Your task to perform on an android device: show emergency info Image 0: 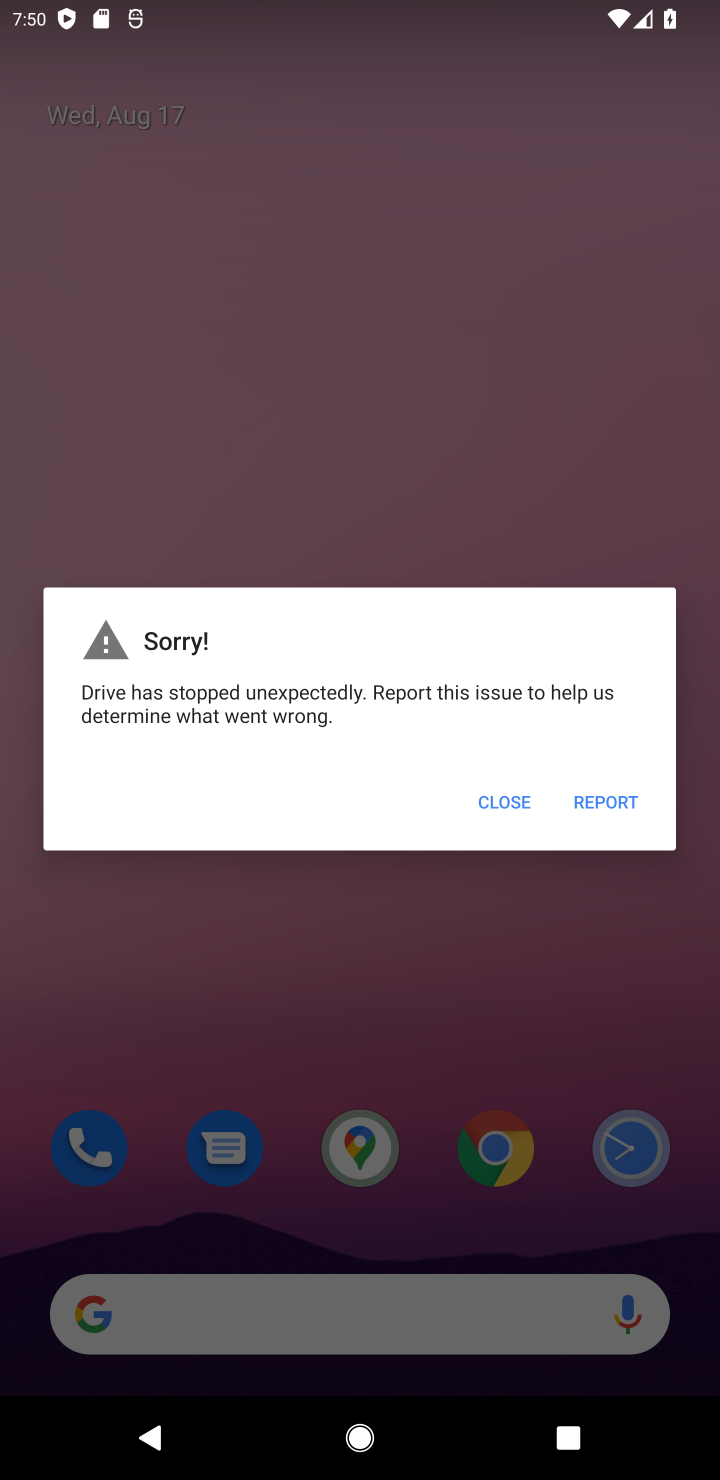
Step 0: click (490, 796)
Your task to perform on an android device: show emergency info Image 1: 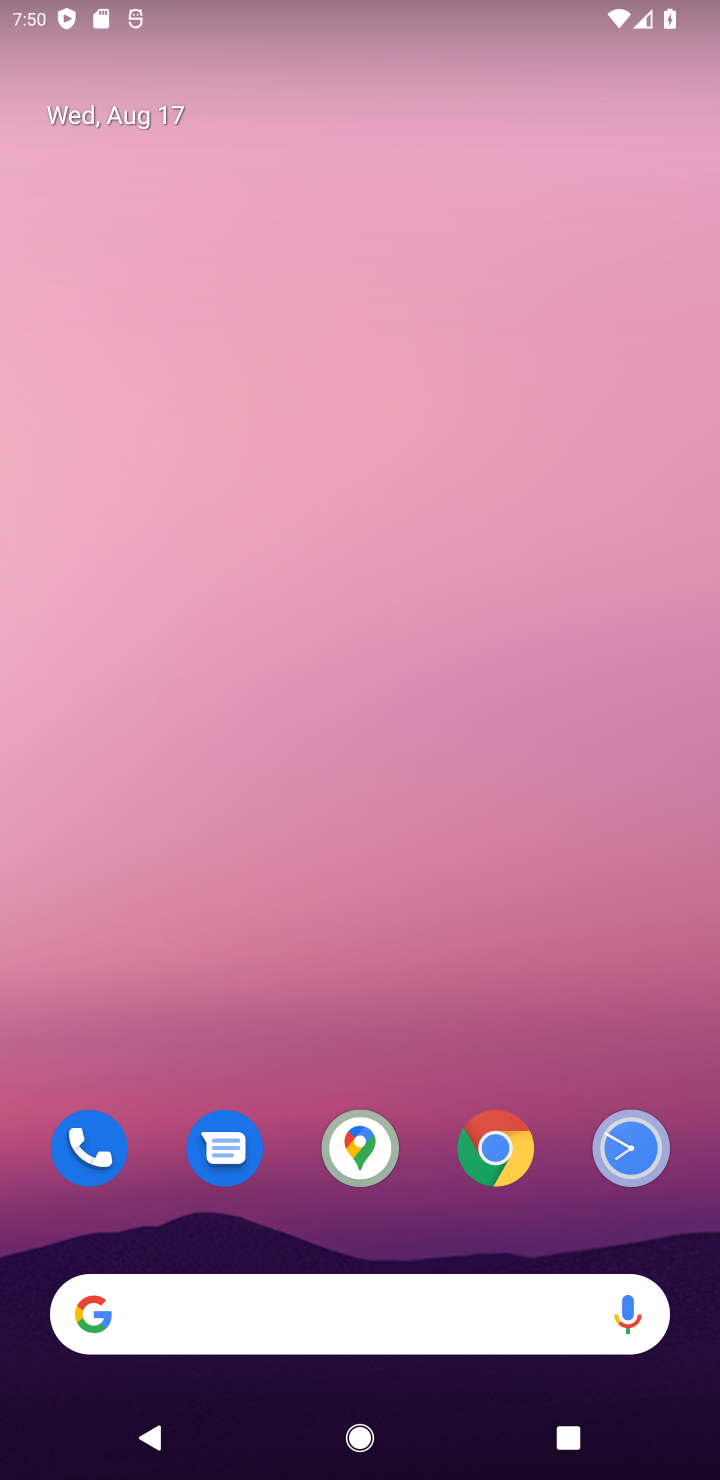
Step 1: drag from (414, 1283) to (414, 187)
Your task to perform on an android device: show emergency info Image 2: 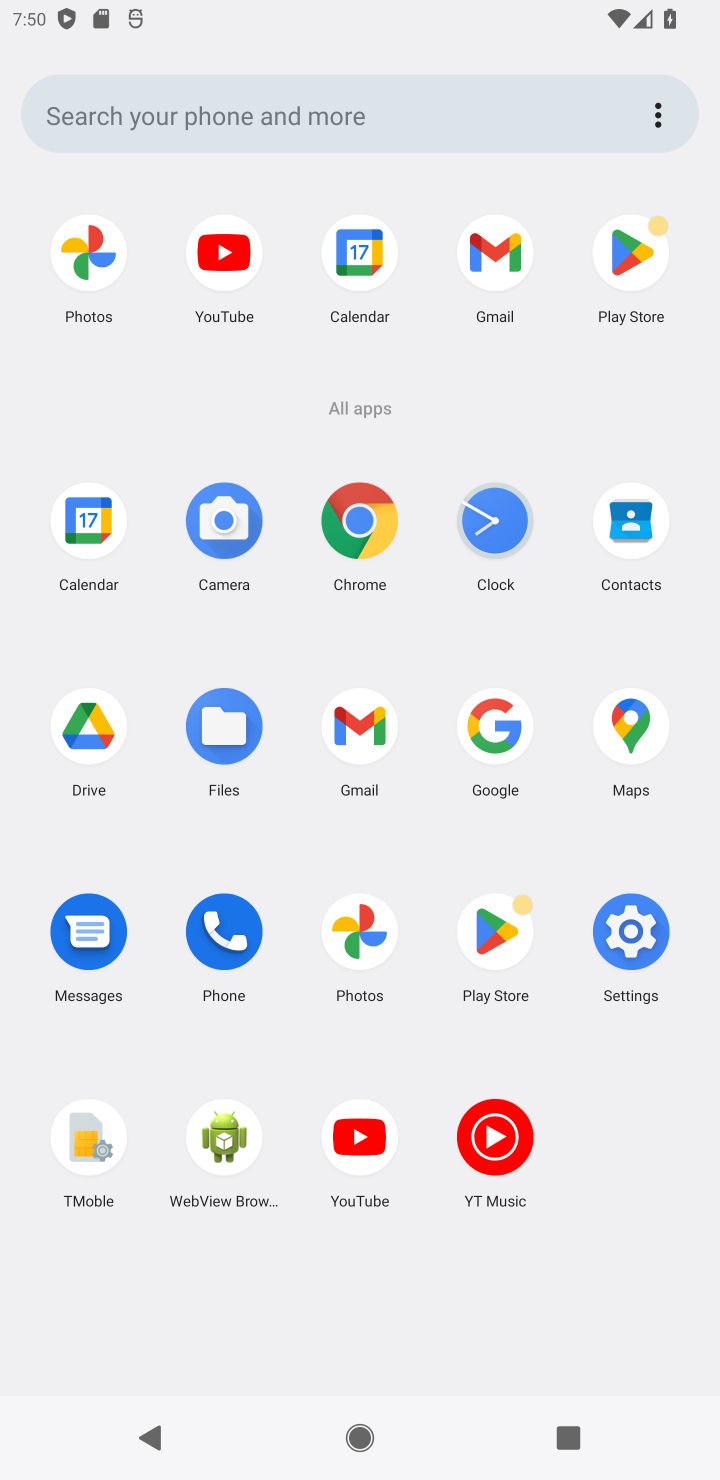
Step 2: click (610, 953)
Your task to perform on an android device: show emergency info Image 3: 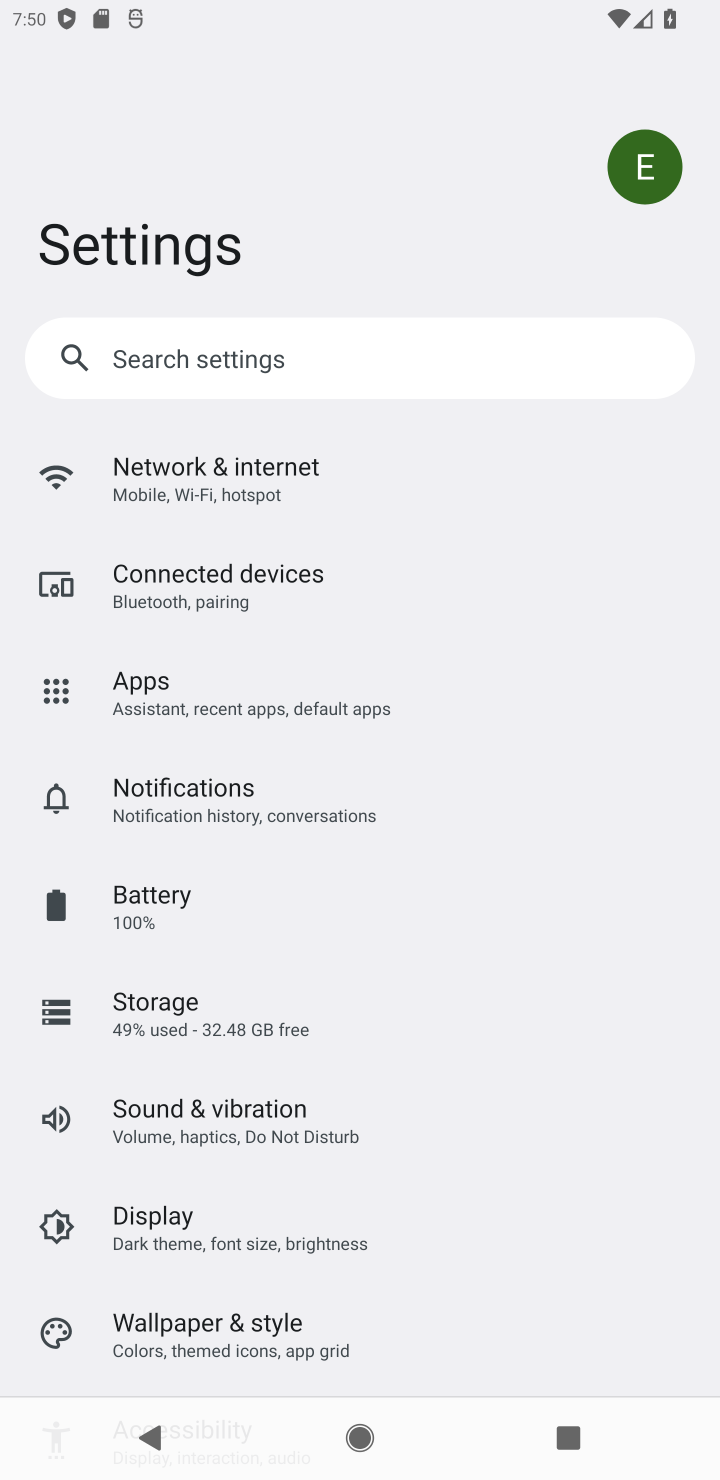
Step 3: drag from (194, 1312) to (229, 490)
Your task to perform on an android device: show emergency info Image 4: 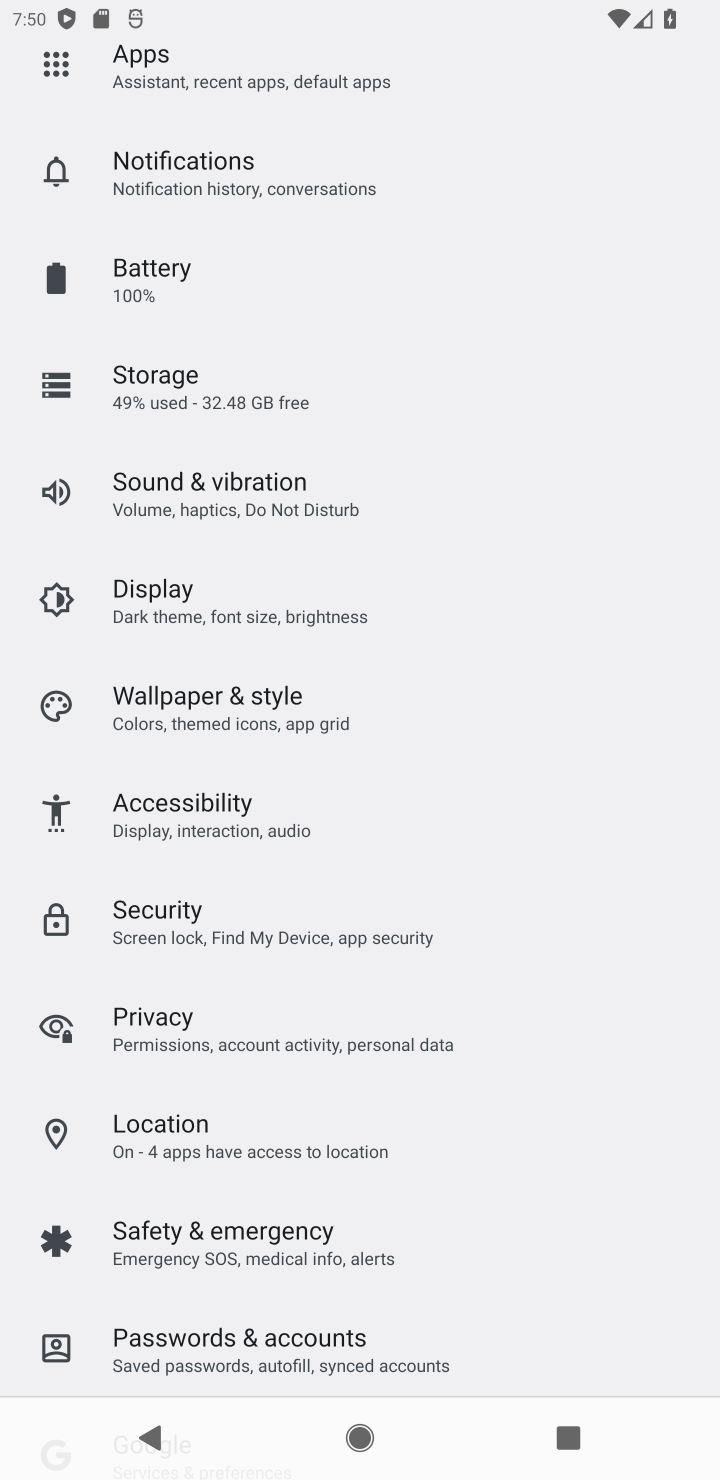
Step 4: drag from (191, 1243) to (191, 679)
Your task to perform on an android device: show emergency info Image 5: 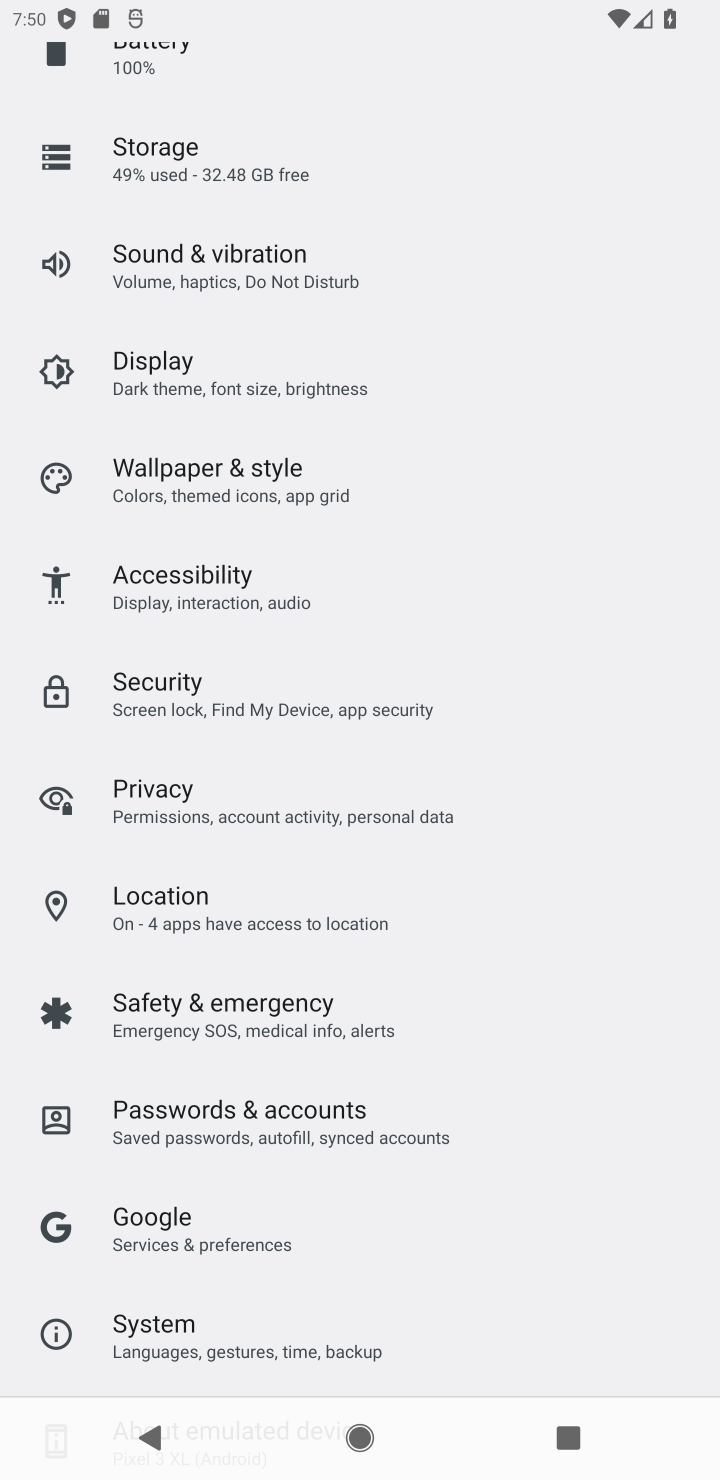
Step 5: click (231, 1011)
Your task to perform on an android device: show emergency info Image 6: 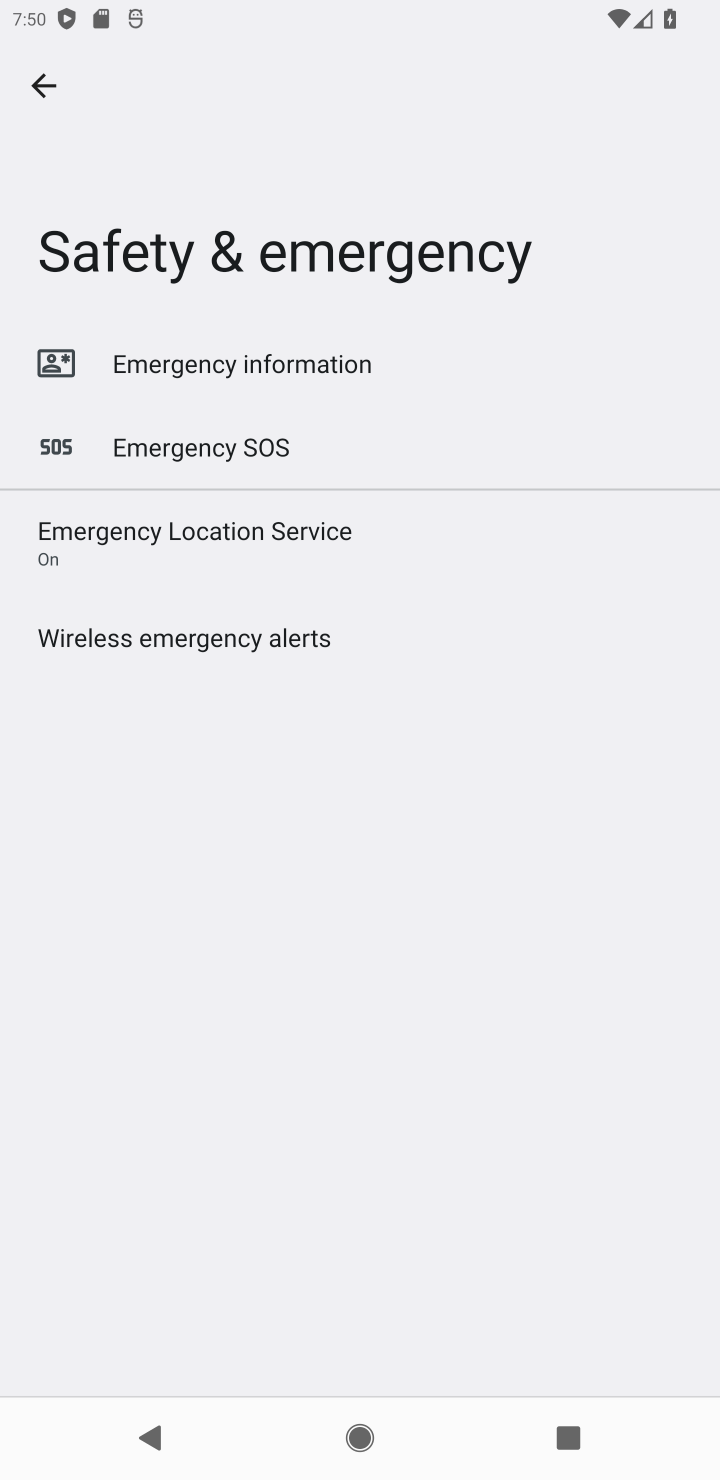
Step 6: click (187, 351)
Your task to perform on an android device: show emergency info Image 7: 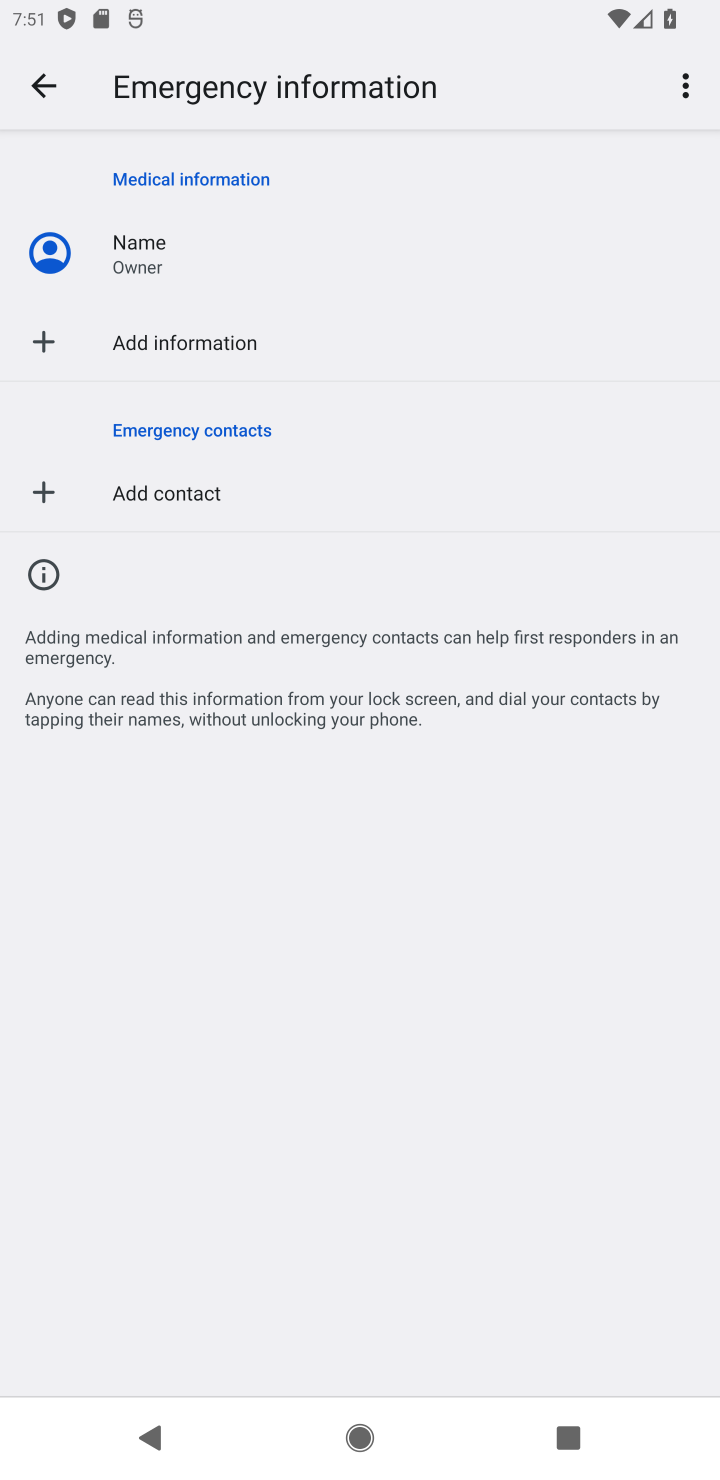
Step 7: task complete